Your task to perform on an android device: When is my next meeting? Image 0: 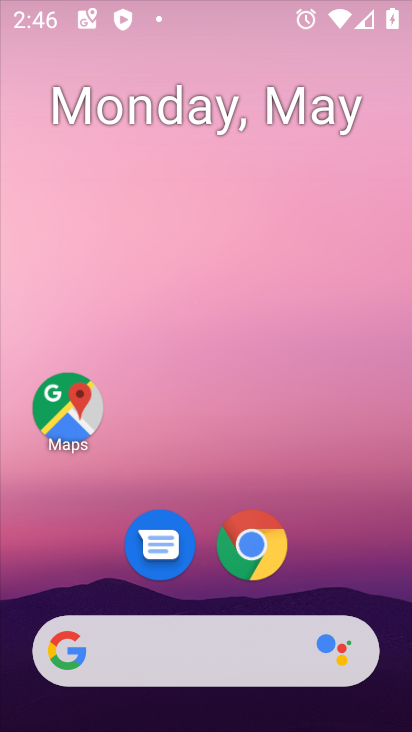
Step 0: drag from (119, 714) to (68, 92)
Your task to perform on an android device: When is my next meeting? Image 1: 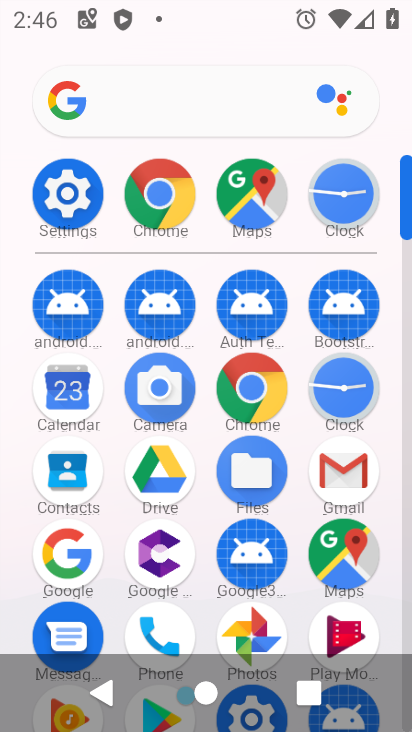
Step 1: click (46, 383)
Your task to perform on an android device: When is my next meeting? Image 2: 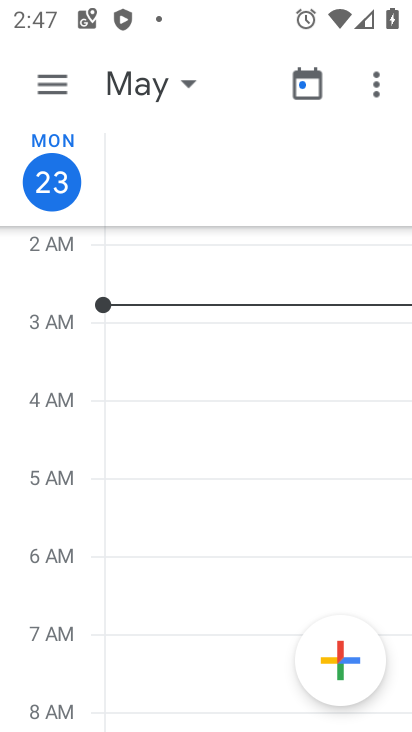
Step 2: click (50, 84)
Your task to perform on an android device: When is my next meeting? Image 3: 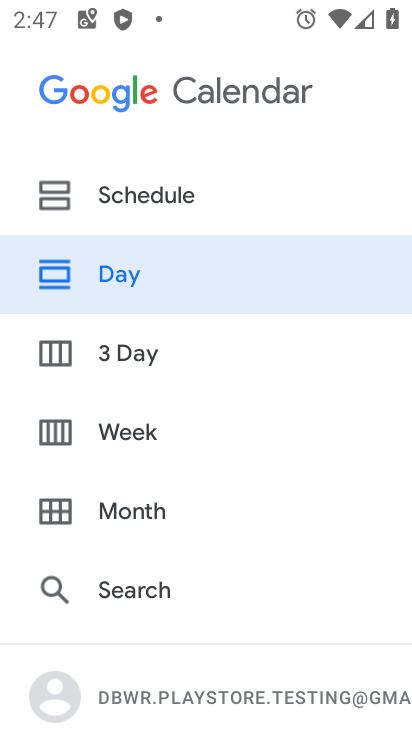
Step 3: click (124, 211)
Your task to perform on an android device: When is my next meeting? Image 4: 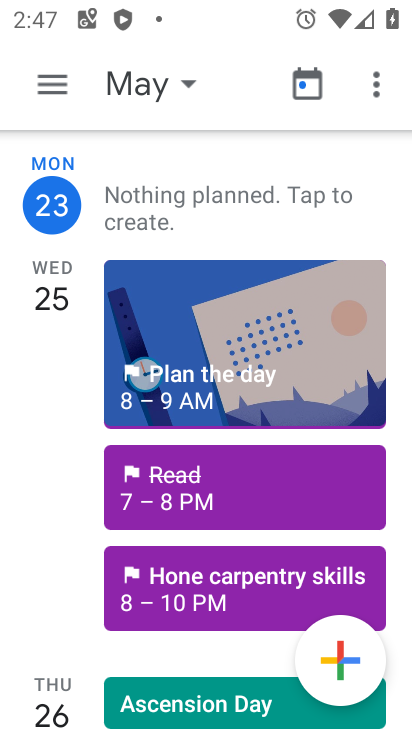
Step 4: task complete